Your task to perform on an android device: open app "Firefox Browser" (install if not already installed) Image 0: 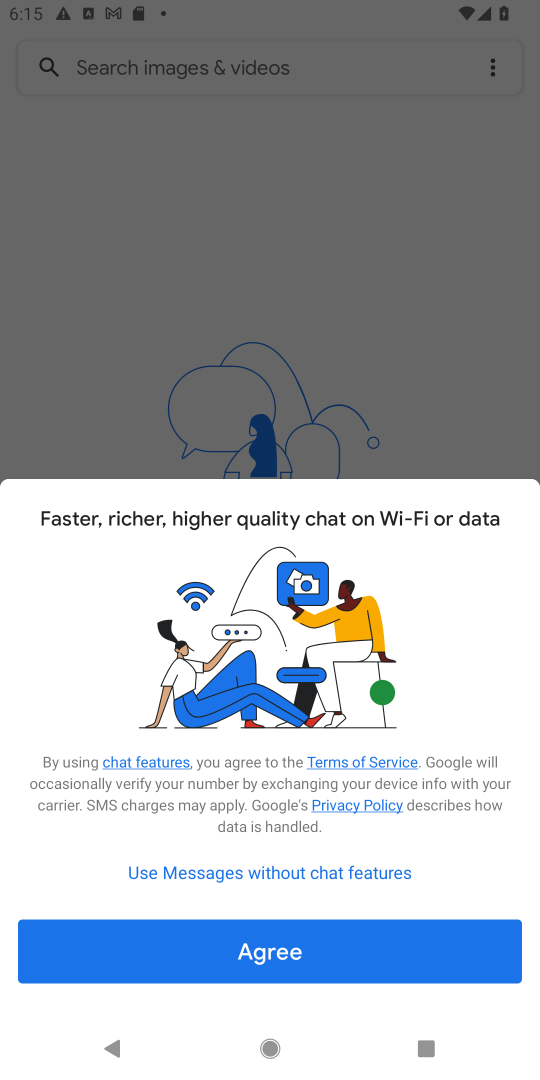
Step 0: press home button
Your task to perform on an android device: open app "Firefox Browser" (install if not already installed) Image 1: 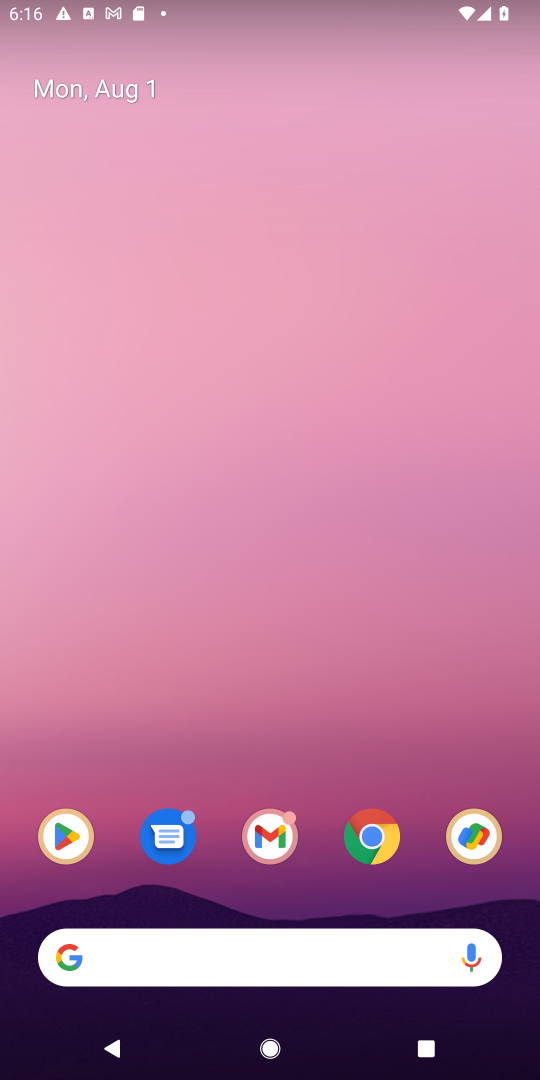
Step 1: click (69, 836)
Your task to perform on an android device: open app "Firefox Browser" (install if not already installed) Image 2: 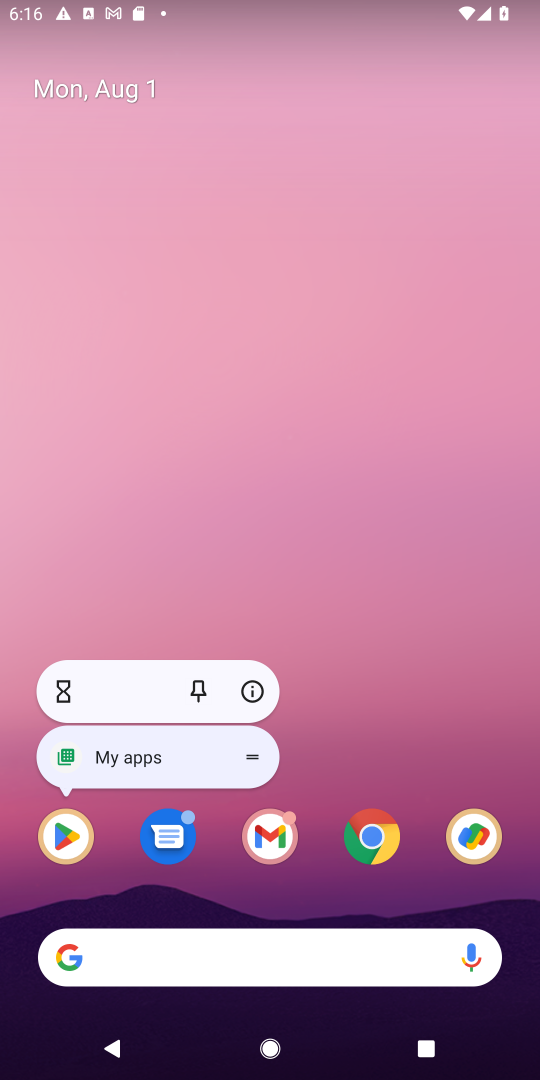
Step 2: click (59, 843)
Your task to perform on an android device: open app "Firefox Browser" (install if not already installed) Image 3: 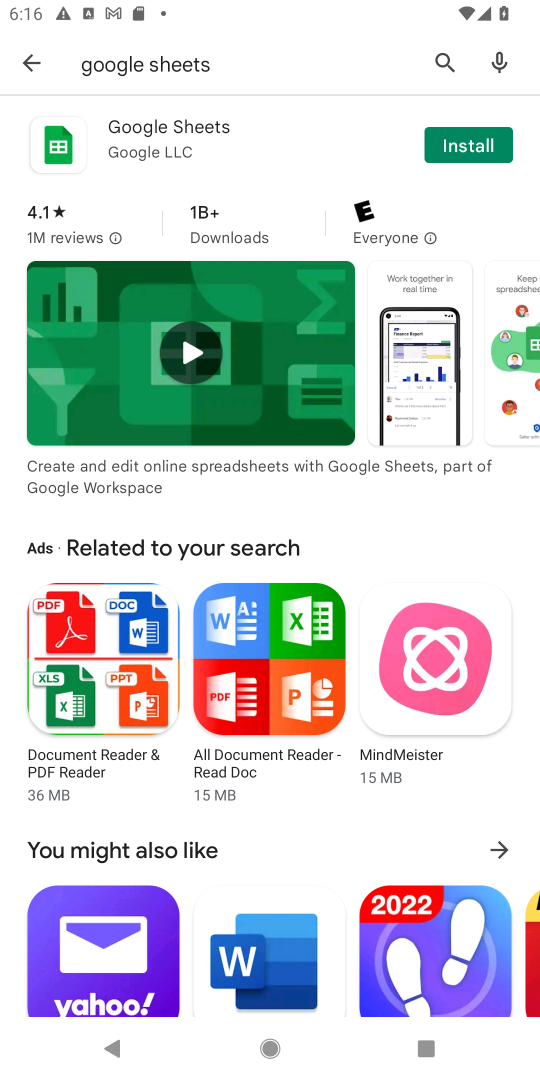
Step 3: click (442, 56)
Your task to perform on an android device: open app "Firefox Browser" (install if not already installed) Image 4: 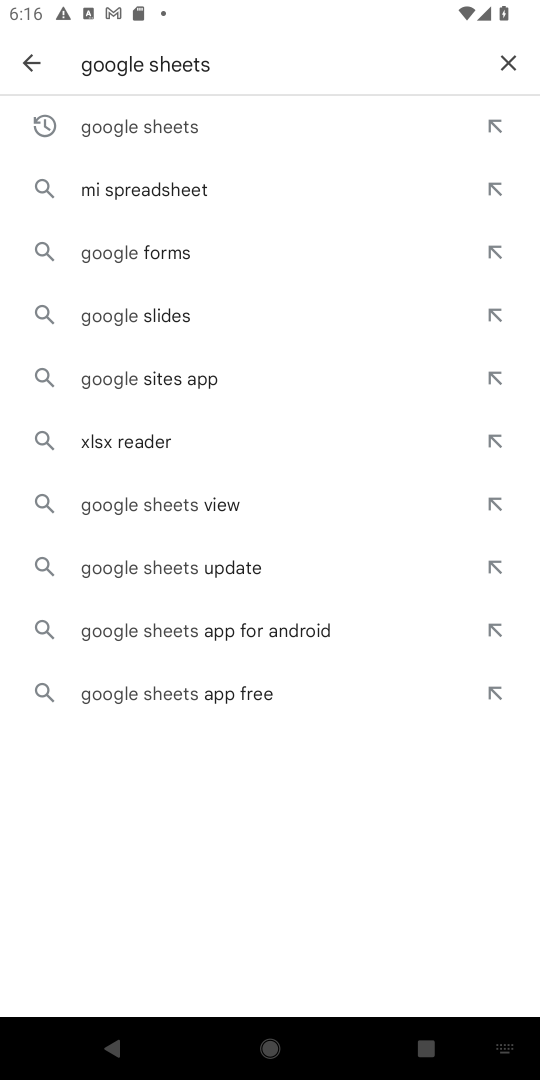
Step 4: click (503, 58)
Your task to perform on an android device: open app "Firefox Browser" (install if not already installed) Image 5: 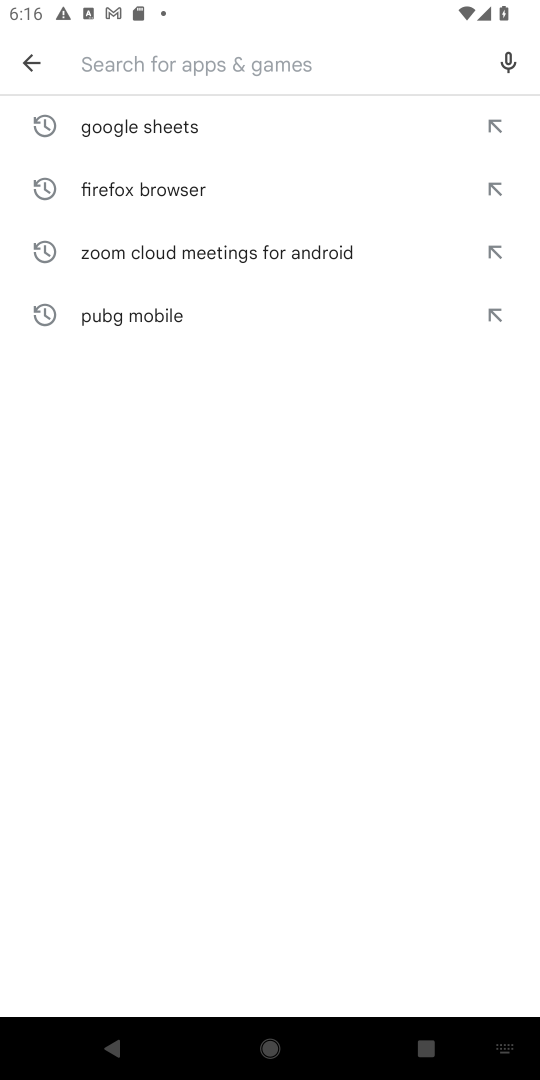
Step 5: type "Firefox Browser"
Your task to perform on an android device: open app "Firefox Browser" (install if not already installed) Image 6: 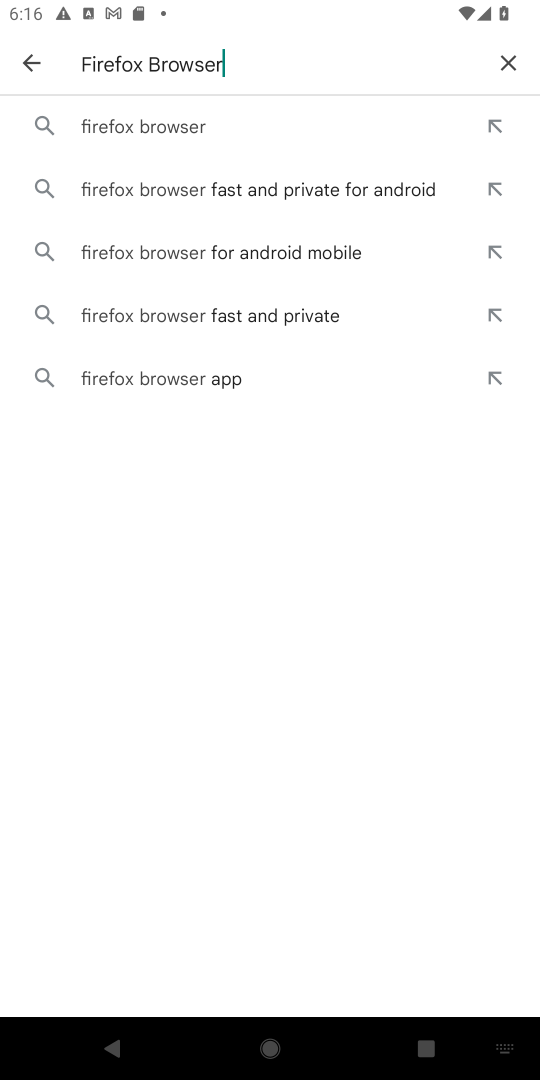
Step 6: click (171, 132)
Your task to perform on an android device: open app "Firefox Browser" (install if not already installed) Image 7: 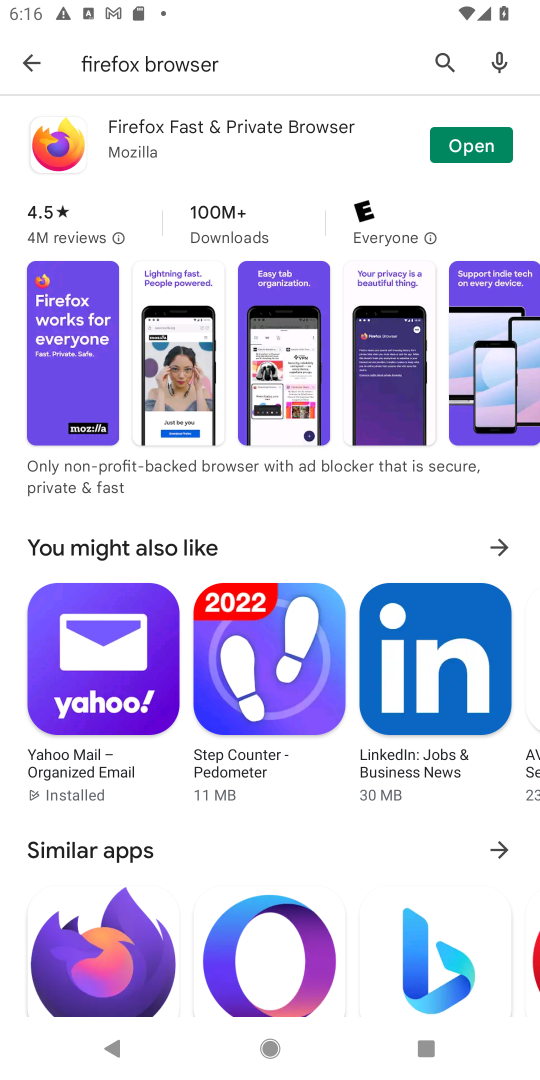
Step 7: click (471, 150)
Your task to perform on an android device: open app "Firefox Browser" (install if not already installed) Image 8: 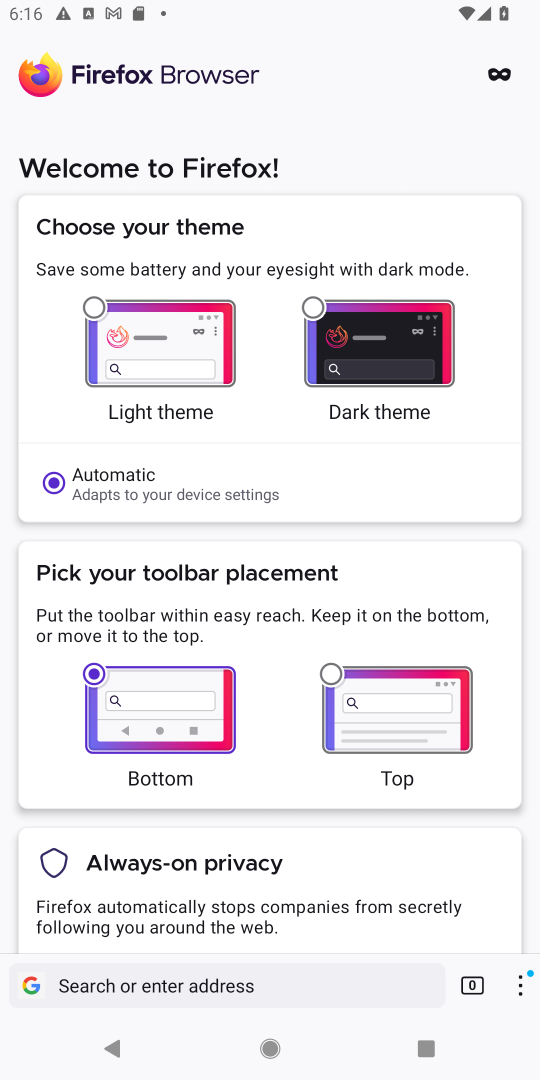
Step 8: task complete